Your task to perform on an android device: find photos in the google photos app Image 0: 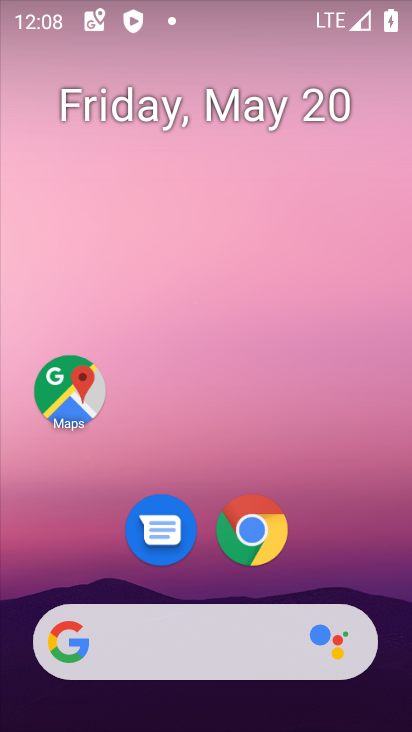
Step 0: drag from (248, 675) to (287, 45)
Your task to perform on an android device: find photos in the google photos app Image 1: 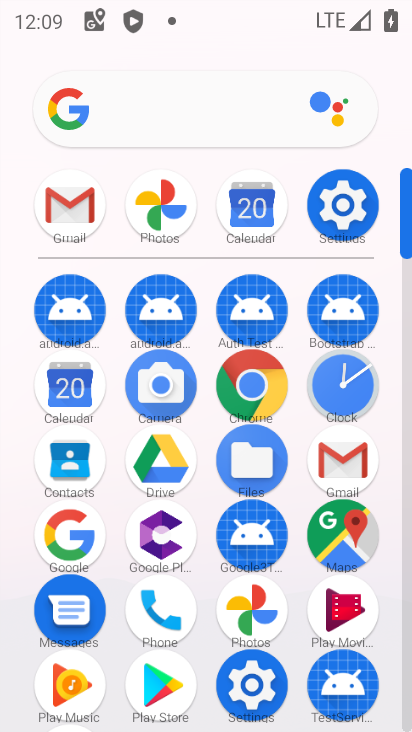
Step 1: click (249, 587)
Your task to perform on an android device: find photos in the google photos app Image 2: 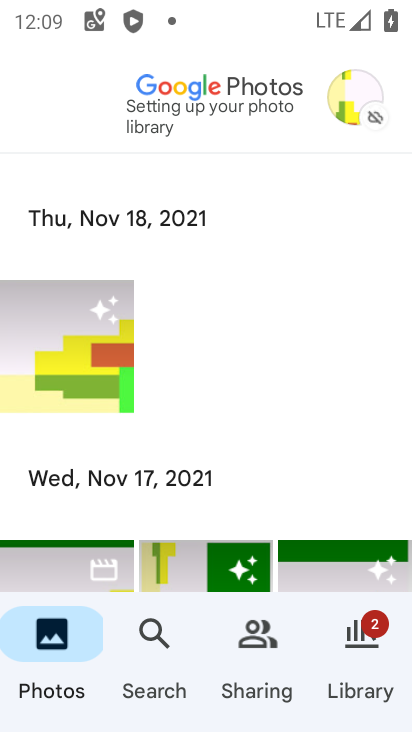
Step 2: task complete